Your task to perform on an android device: change the clock style Image 0: 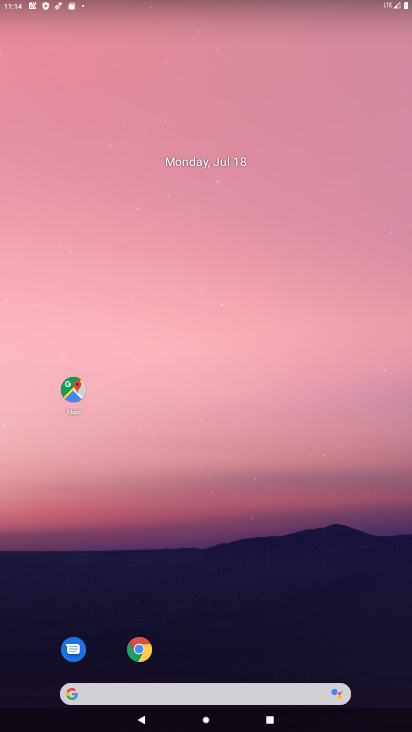
Step 0: drag from (185, 708) to (313, 0)
Your task to perform on an android device: change the clock style Image 1: 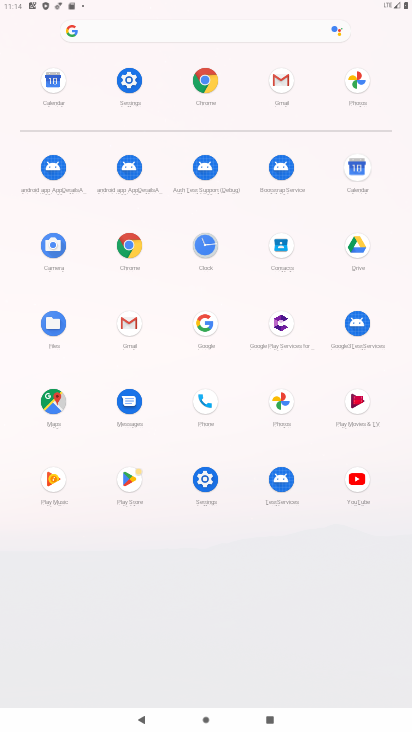
Step 1: click (212, 249)
Your task to perform on an android device: change the clock style Image 2: 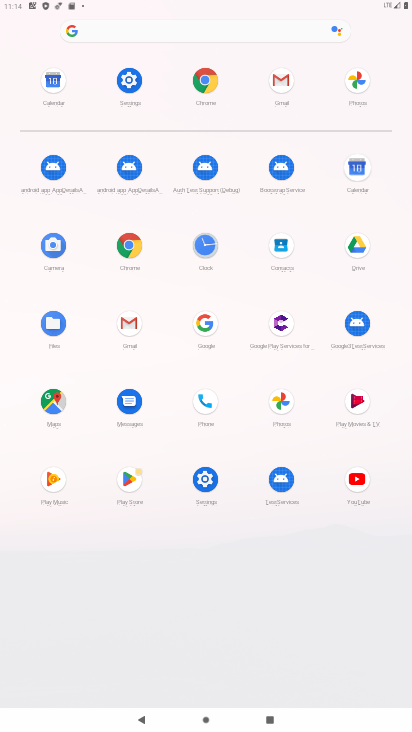
Step 2: click (212, 249)
Your task to perform on an android device: change the clock style Image 3: 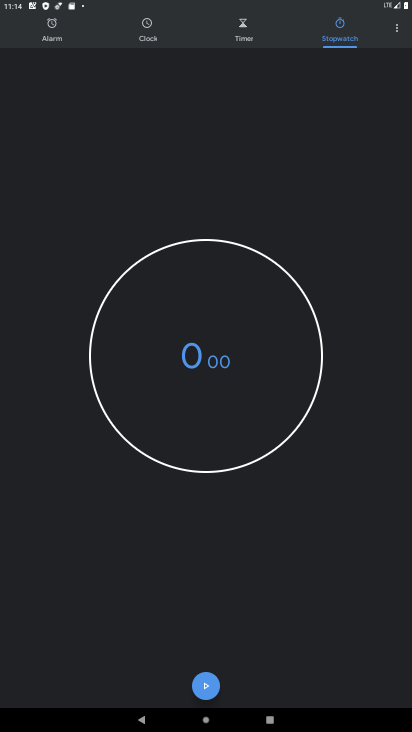
Step 3: click (404, 32)
Your task to perform on an android device: change the clock style Image 4: 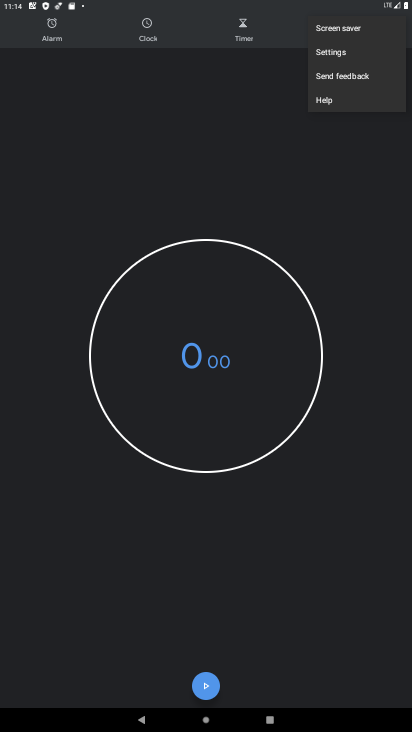
Step 4: click (345, 55)
Your task to perform on an android device: change the clock style Image 5: 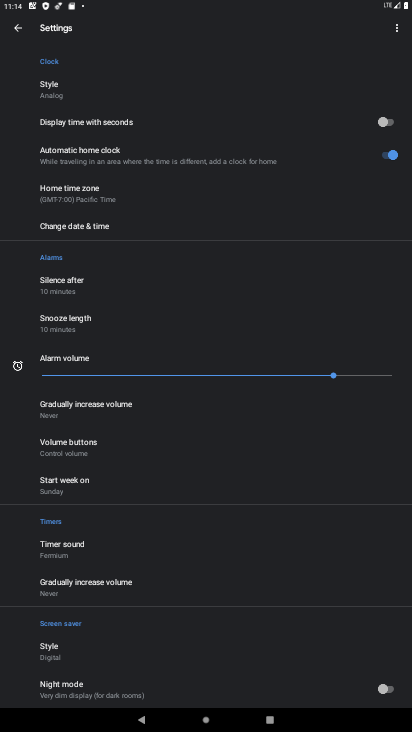
Step 5: click (86, 83)
Your task to perform on an android device: change the clock style Image 6: 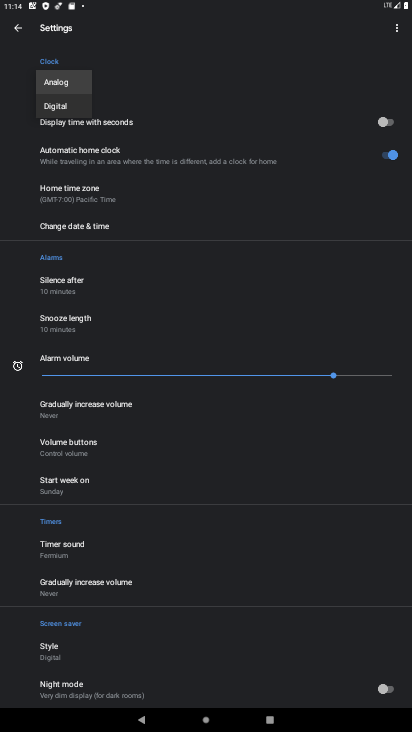
Step 6: click (69, 108)
Your task to perform on an android device: change the clock style Image 7: 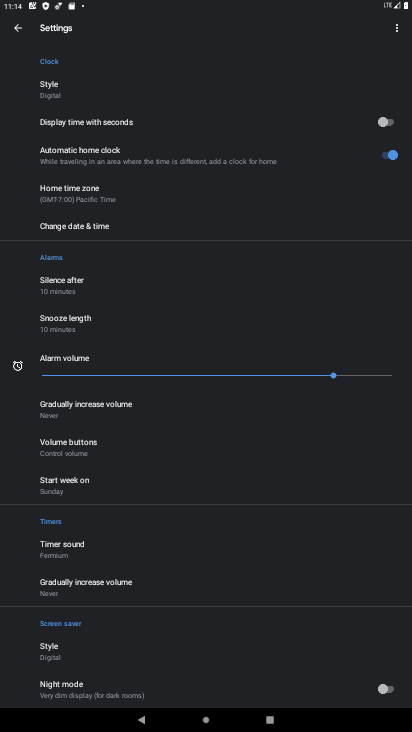
Step 7: task complete